Your task to perform on an android device: Go to CNN.com Image 0: 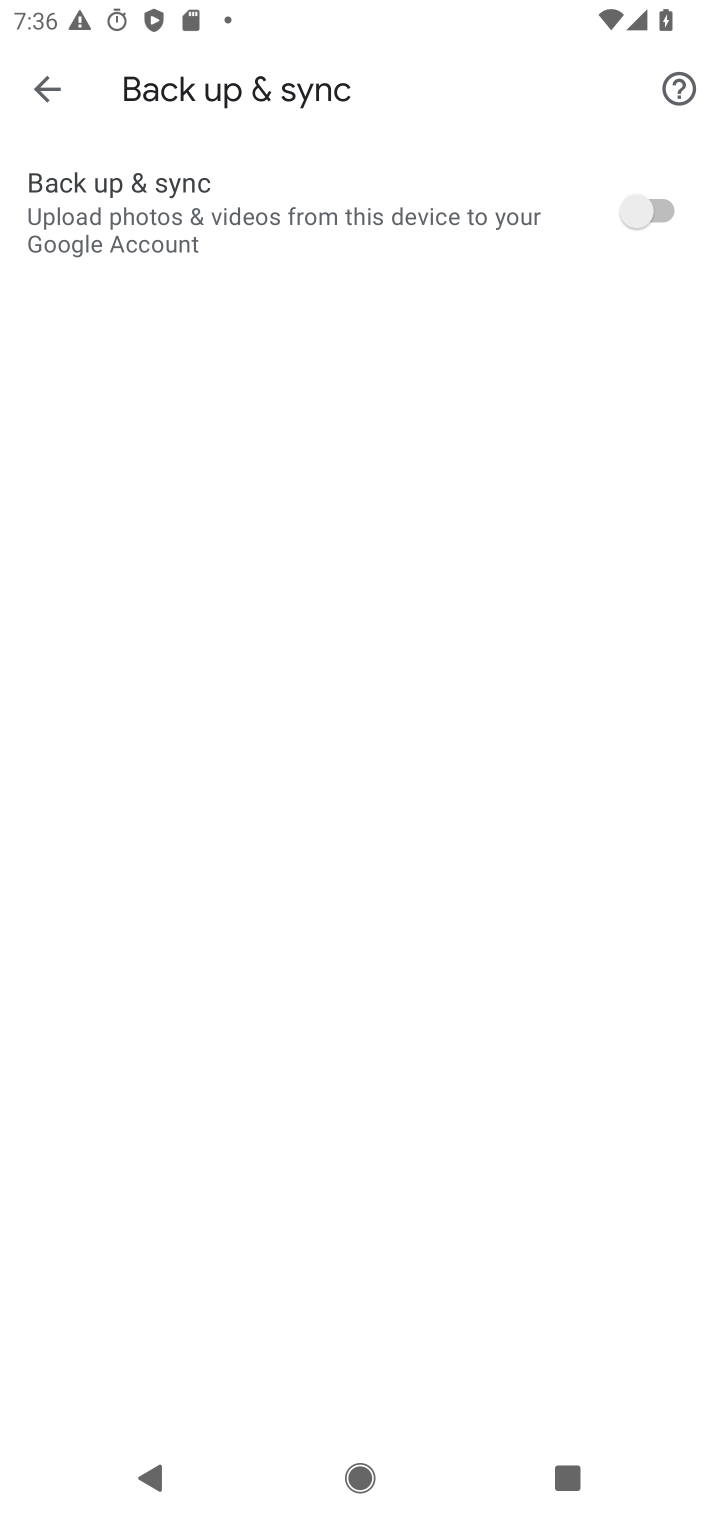
Step 0: press home button
Your task to perform on an android device: Go to CNN.com Image 1: 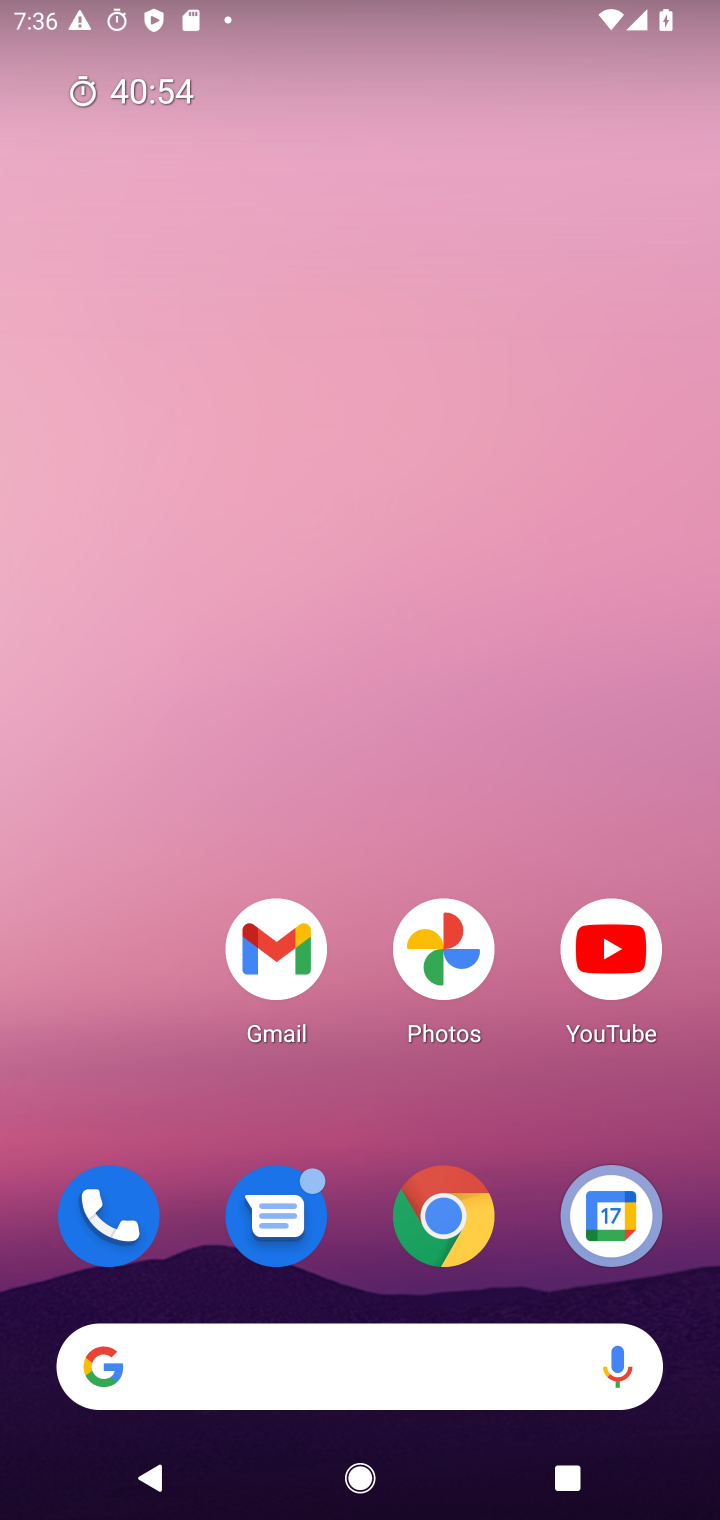
Step 1: drag from (491, 1081) to (510, 0)
Your task to perform on an android device: Go to CNN.com Image 2: 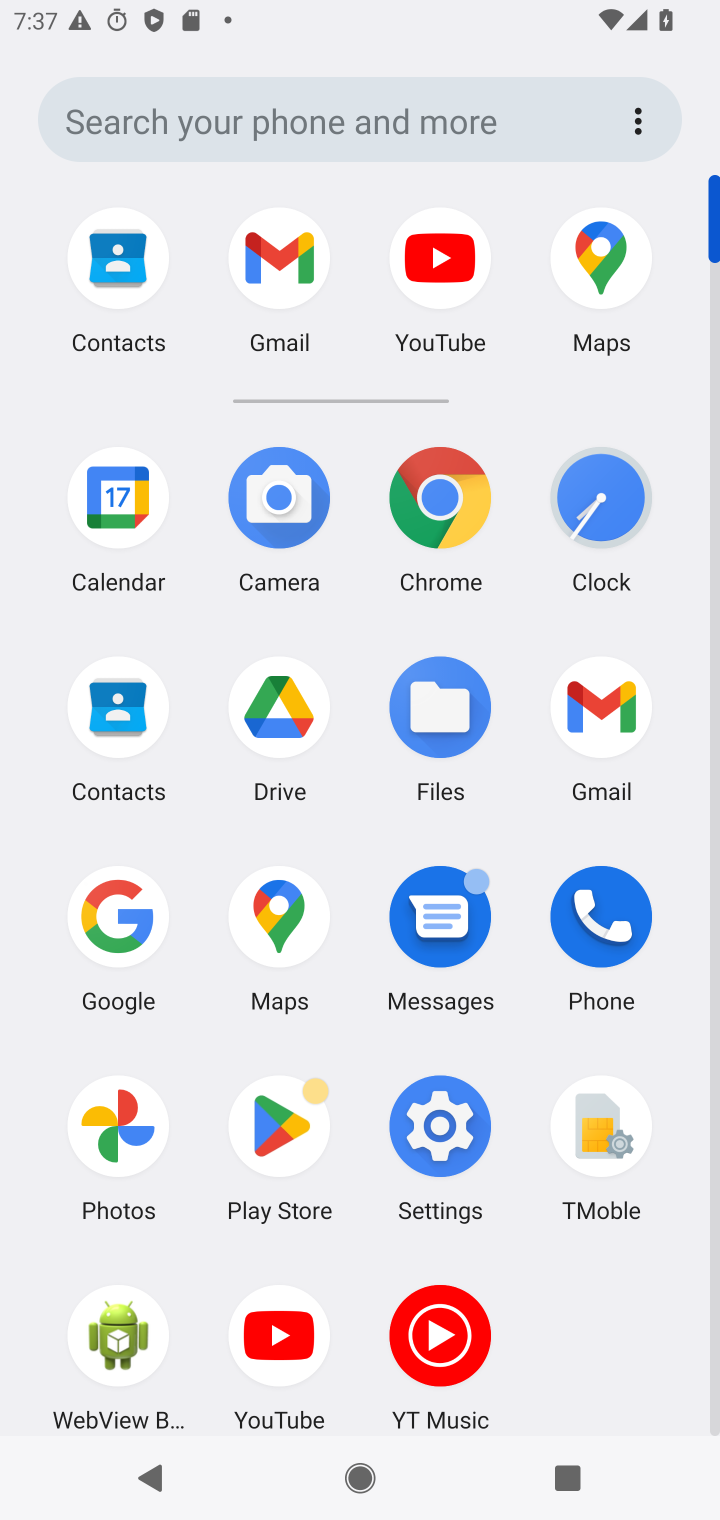
Step 2: click (442, 480)
Your task to perform on an android device: Go to CNN.com Image 3: 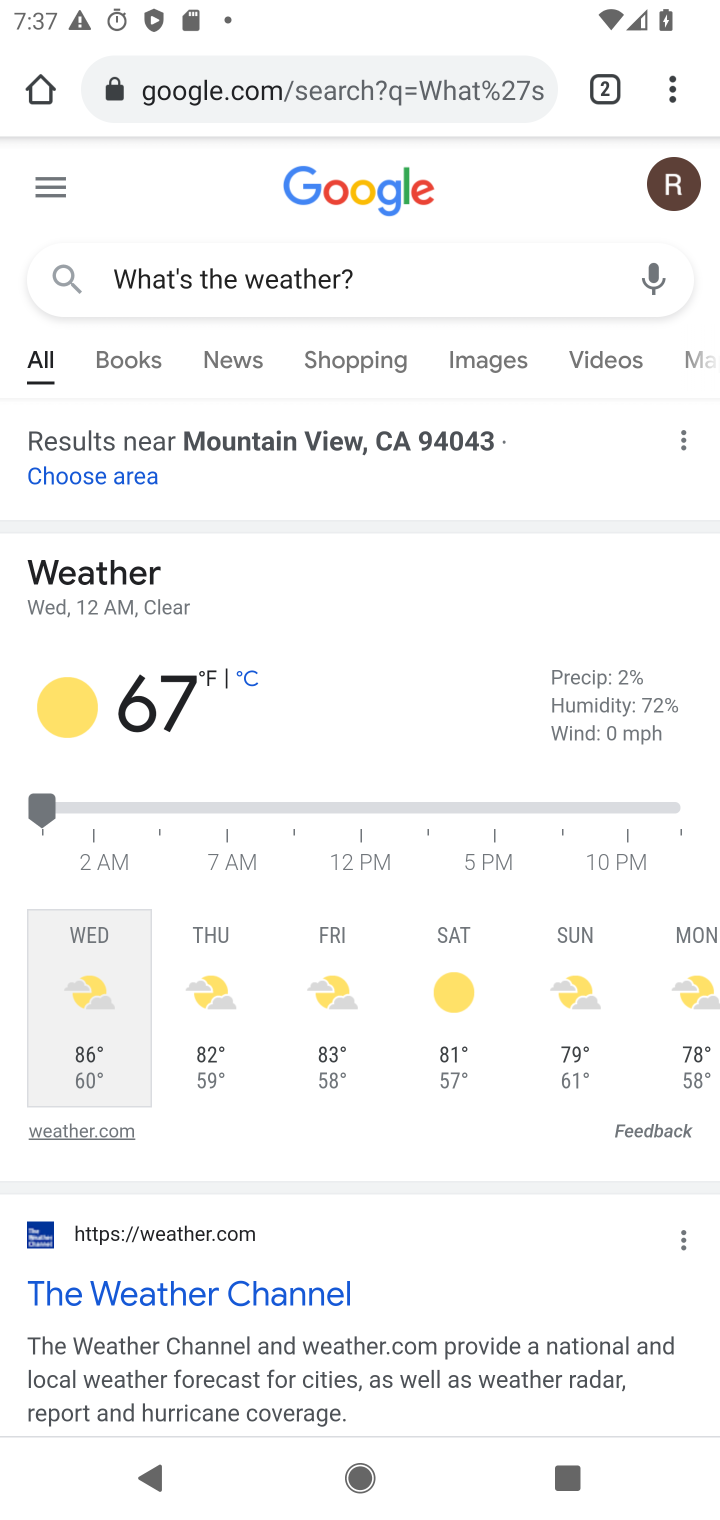
Step 3: click (288, 90)
Your task to perform on an android device: Go to CNN.com Image 4: 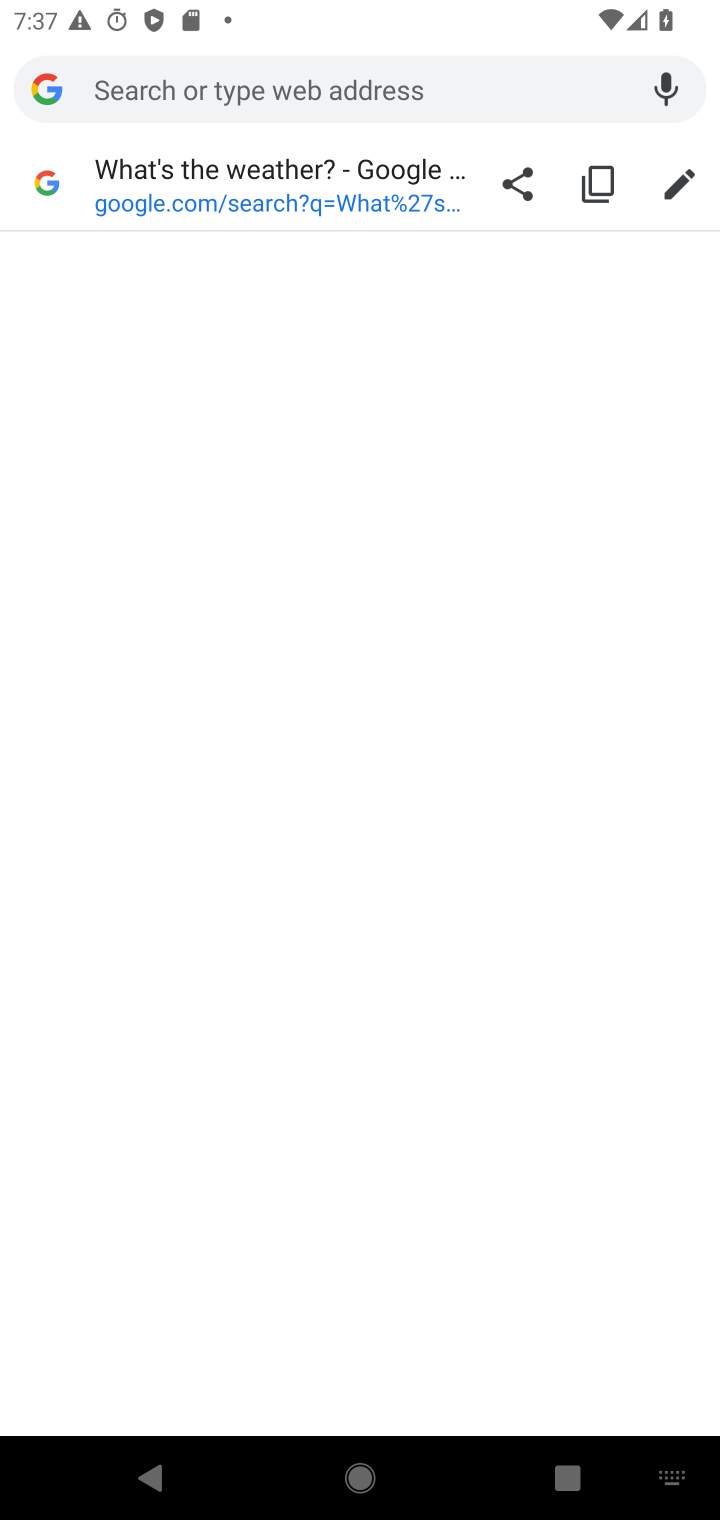
Step 4: type " CNN.com"
Your task to perform on an android device: Go to CNN.com Image 5: 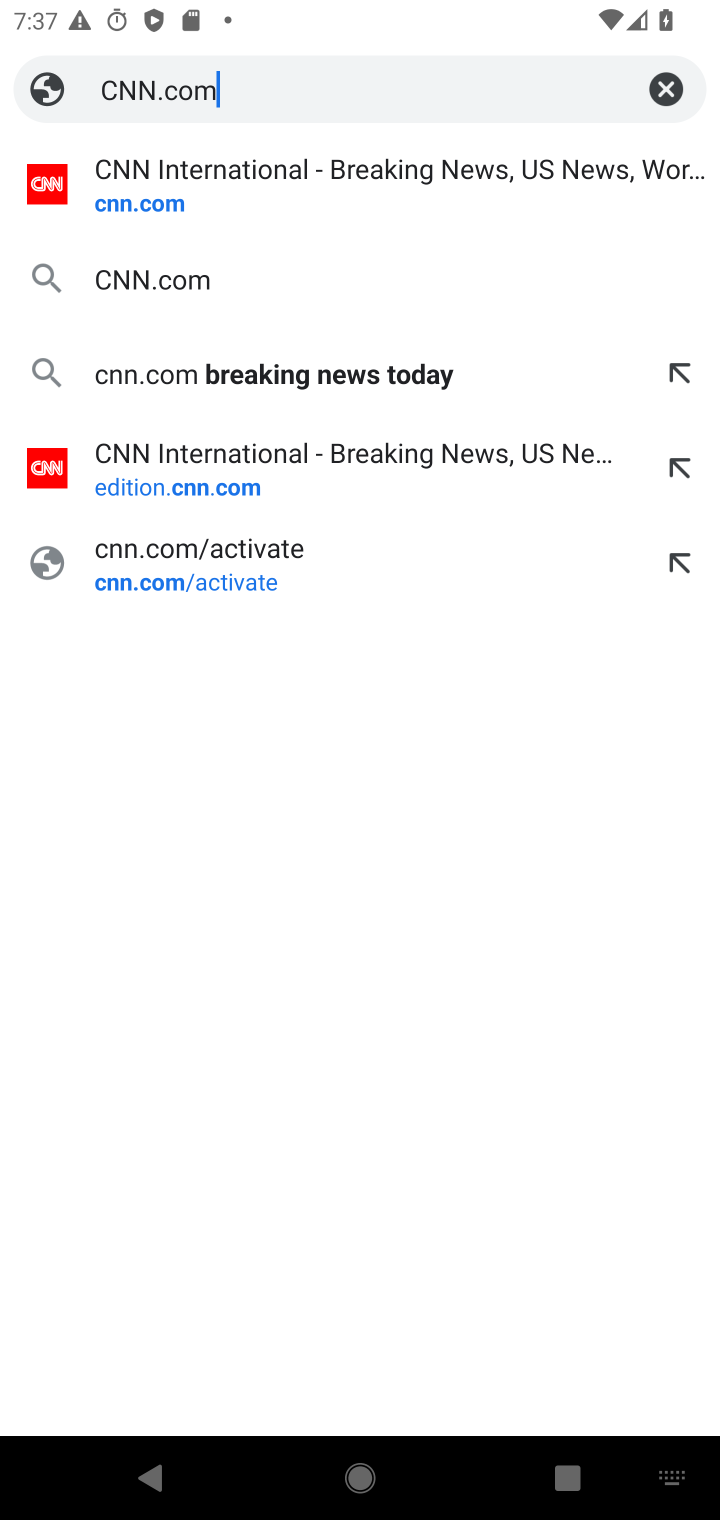
Step 5: click (163, 202)
Your task to perform on an android device: Go to CNN.com Image 6: 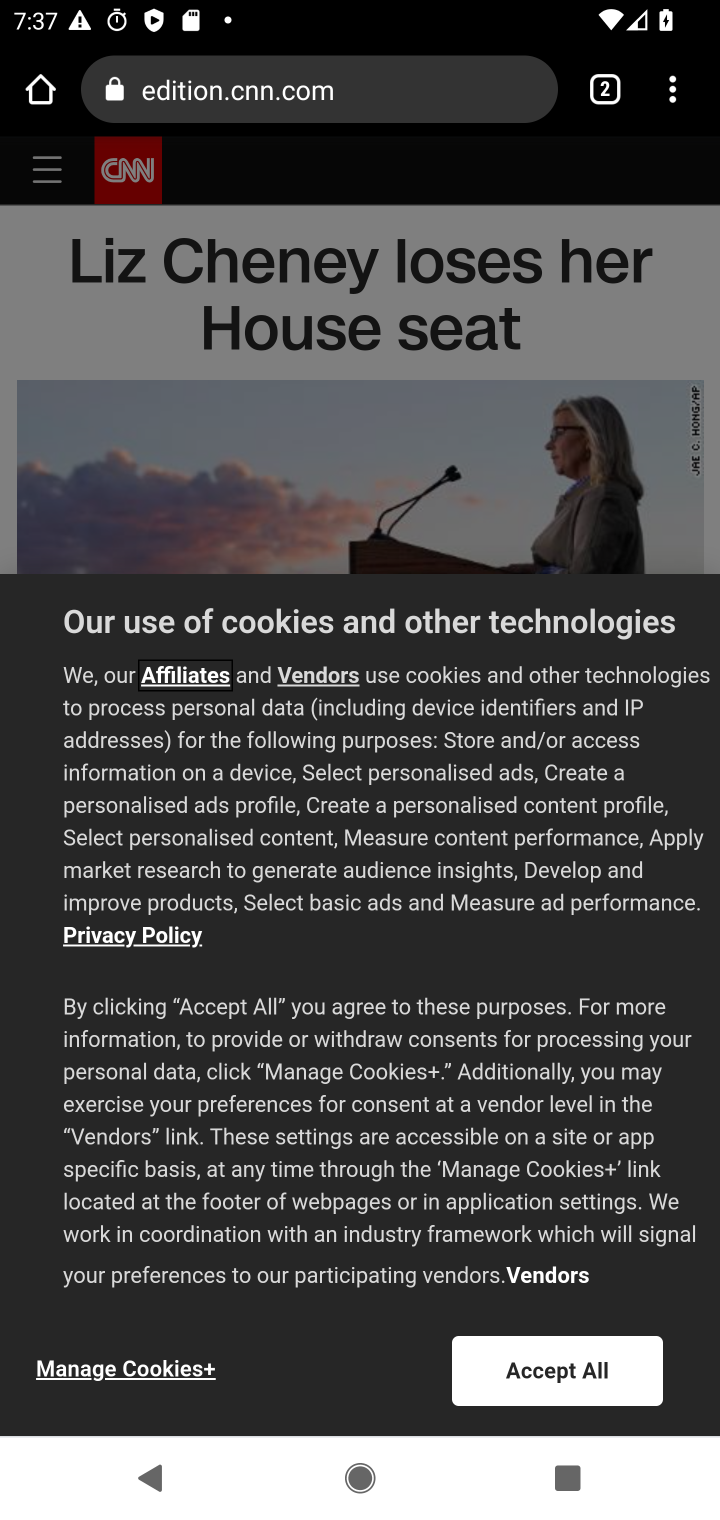
Step 6: task complete